Your task to perform on an android device: open chrome and create a bookmark for the current page Image 0: 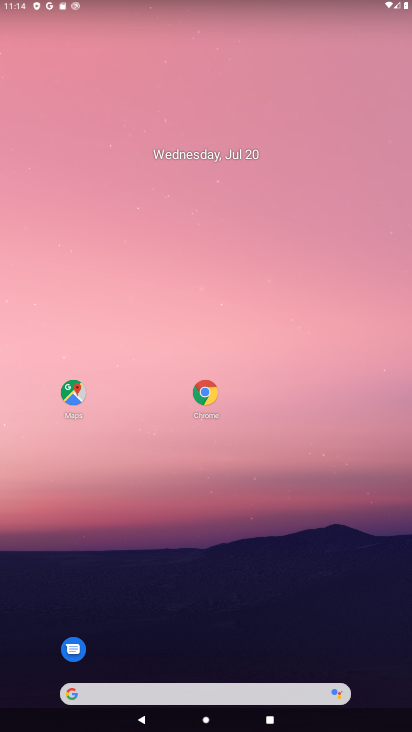
Step 0: drag from (195, 635) to (208, 110)
Your task to perform on an android device: open chrome and create a bookmark for the current page Image 1: 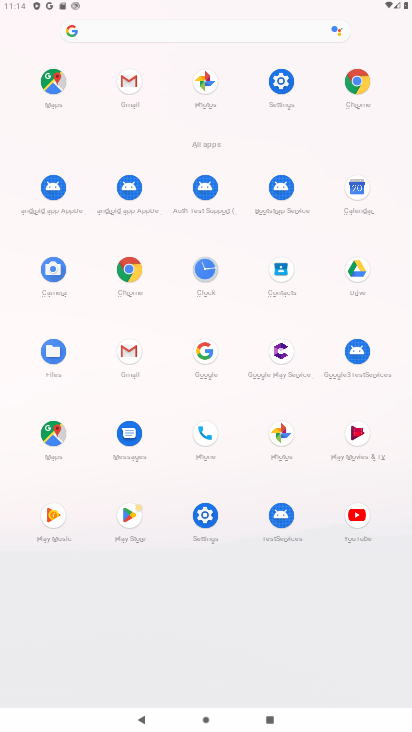
Step 1: click (352, 82)
Your task to perform on an android device: open chrome and create a bookmark for the current page Image 2: 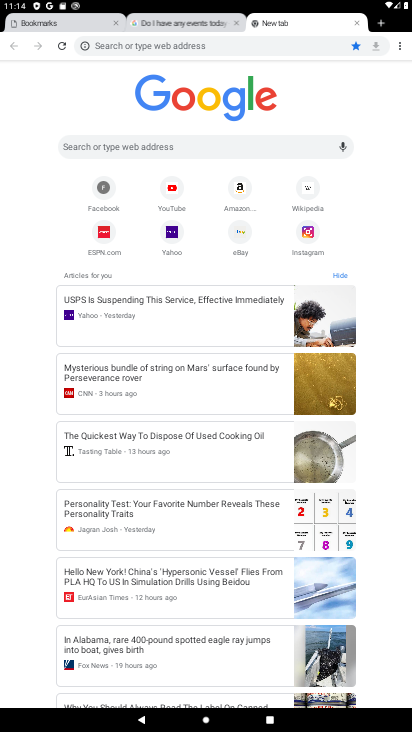
Step 2: click (362, 44)
Your task to perform on an android device: open chrome and create a bookmark for the current page Image 3: 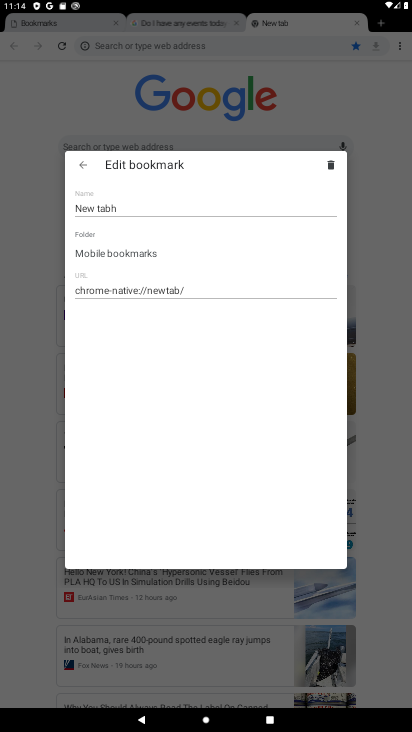
Step 3: click (370, 122)
Your task to perform on an android device: open chrome and create a bookmark for the current page Image 4: 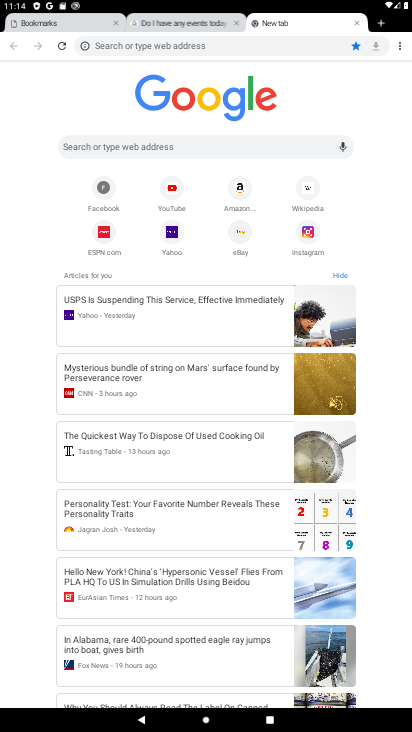
Step 4: click (362, 23)
Your task to perform on an android device: open chrome and create a bookmark for the current page Image 5: 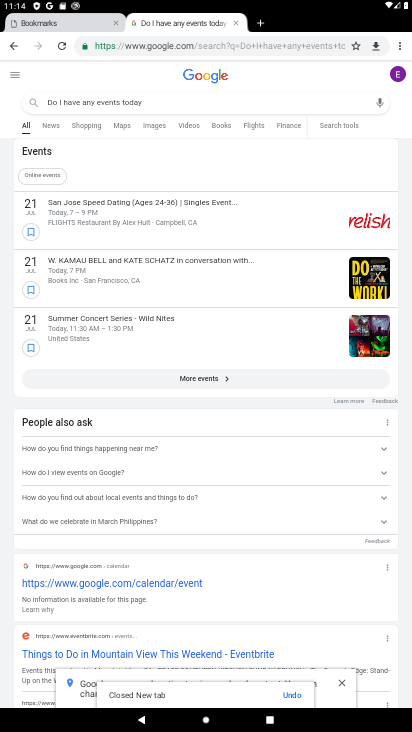
Step 5: click (262, 23)
Your task to perform on an android device: open chrome and create a bookmark for the current page Image 6: 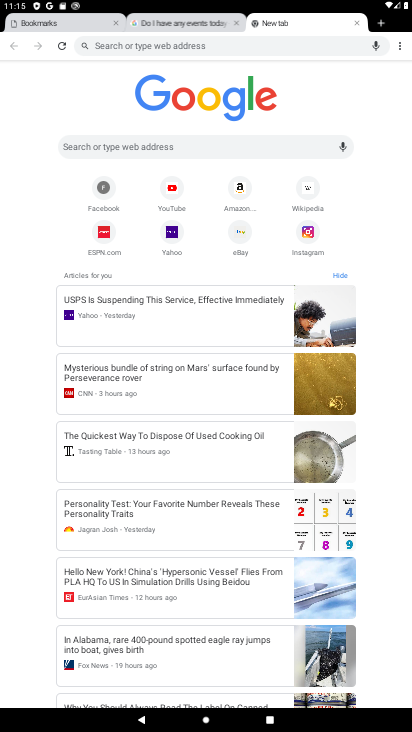
Step 6: click (401, 44)
Your task to perform on an android device: open chrome and create a bookmark for the current page Image 7: 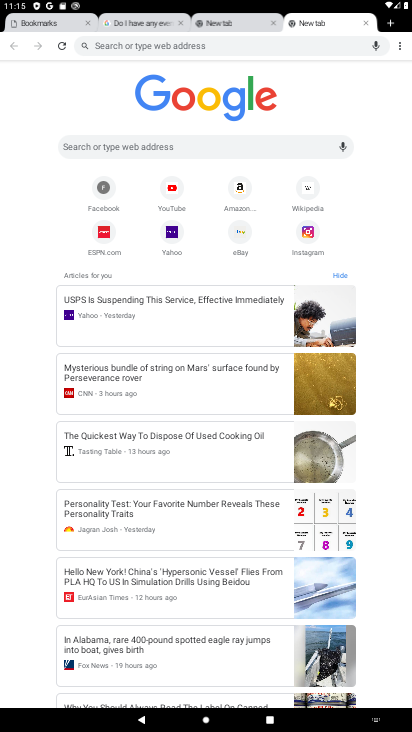
Step 7: task complete